Your task to perform on an android device: Open the calendar app Image 0: 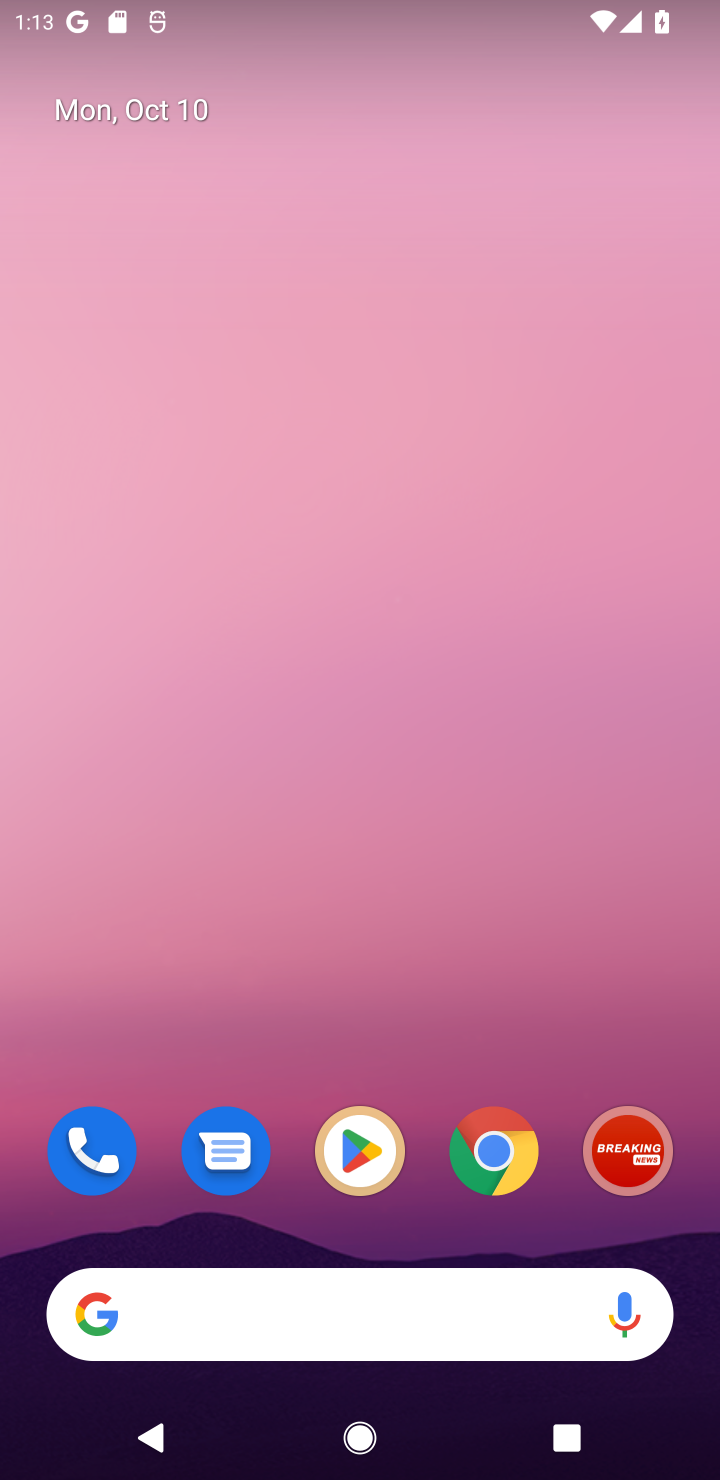
Step 0: drag from (335, 1051) to (283, 159)
Your task to perform on an android device: Open the calendar app Image 1: 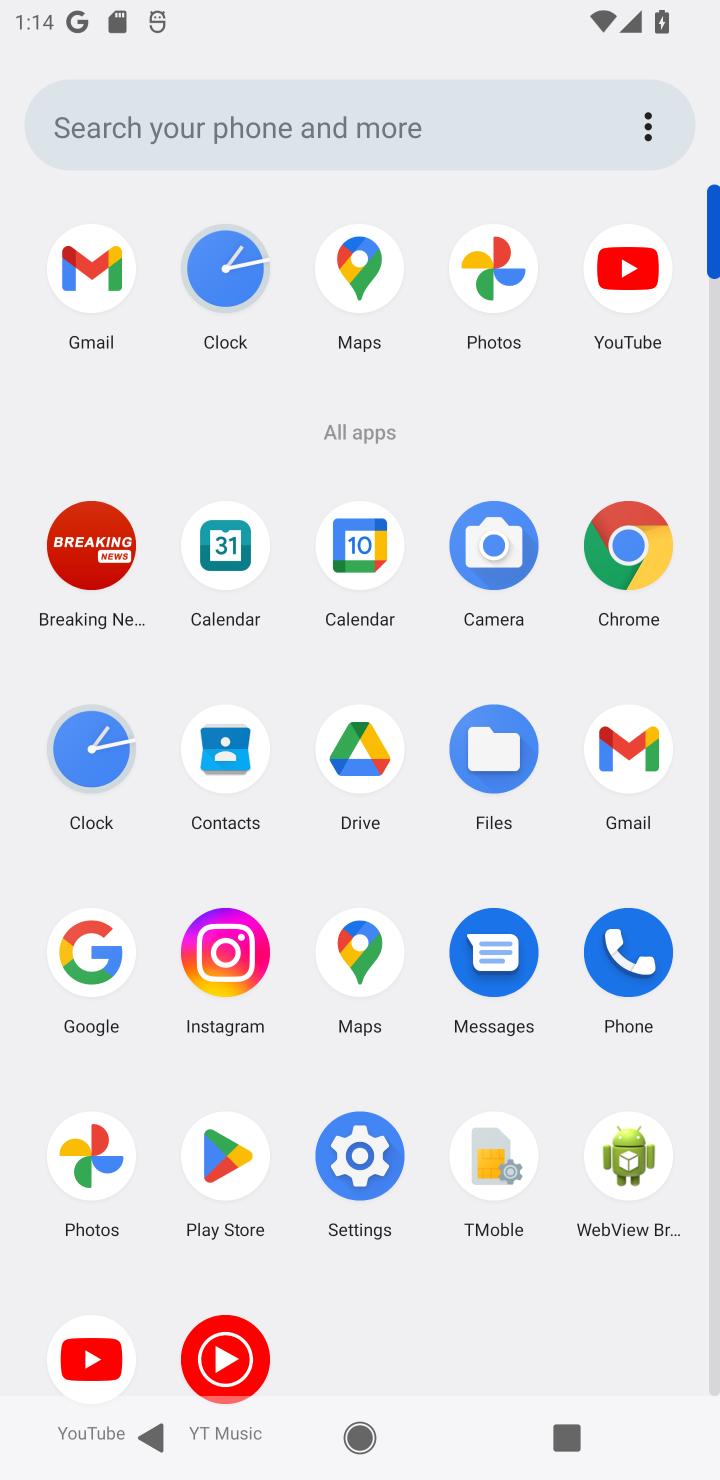
Step 1: click (220, 560)
Your task to perform on an android device: Open the calendar app Image 2: 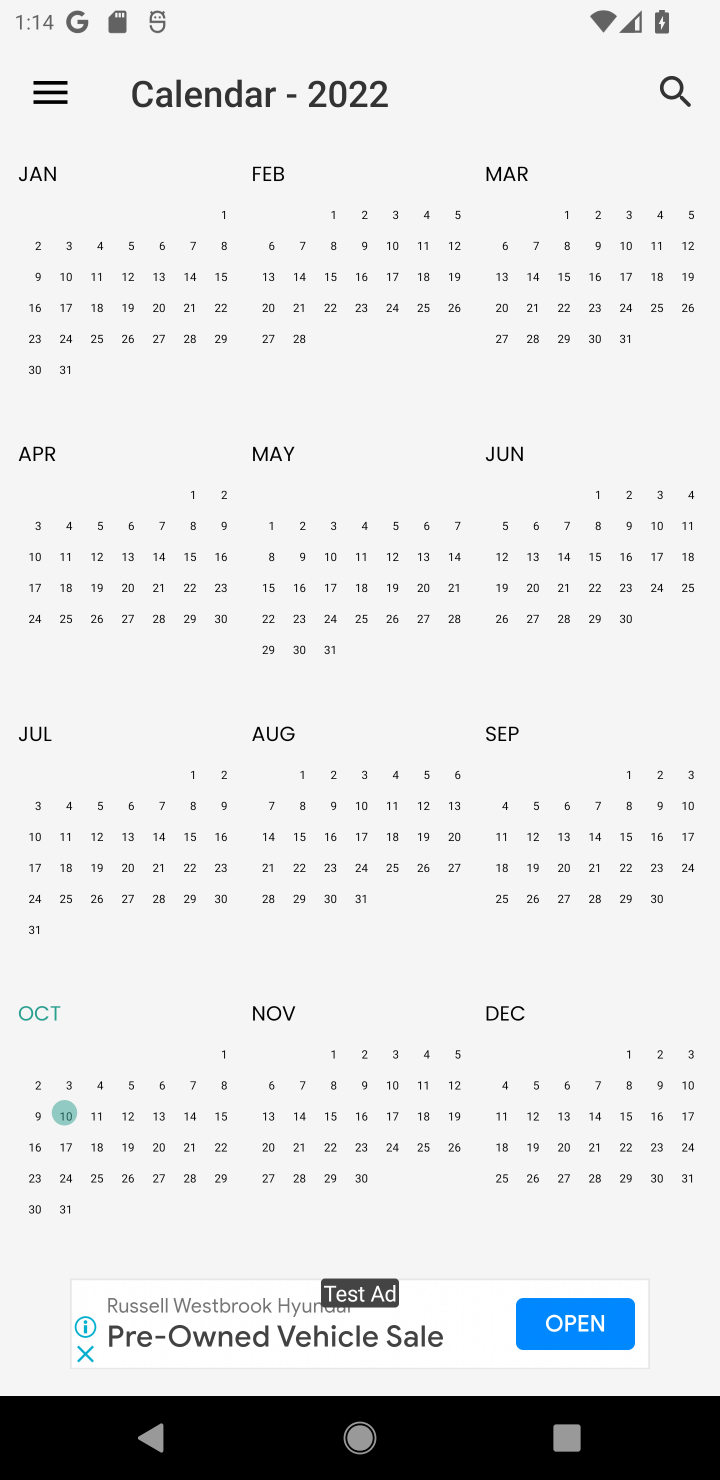
Step 2: task complete